Your task to perform on an android device: Go to Android settings Image 0: 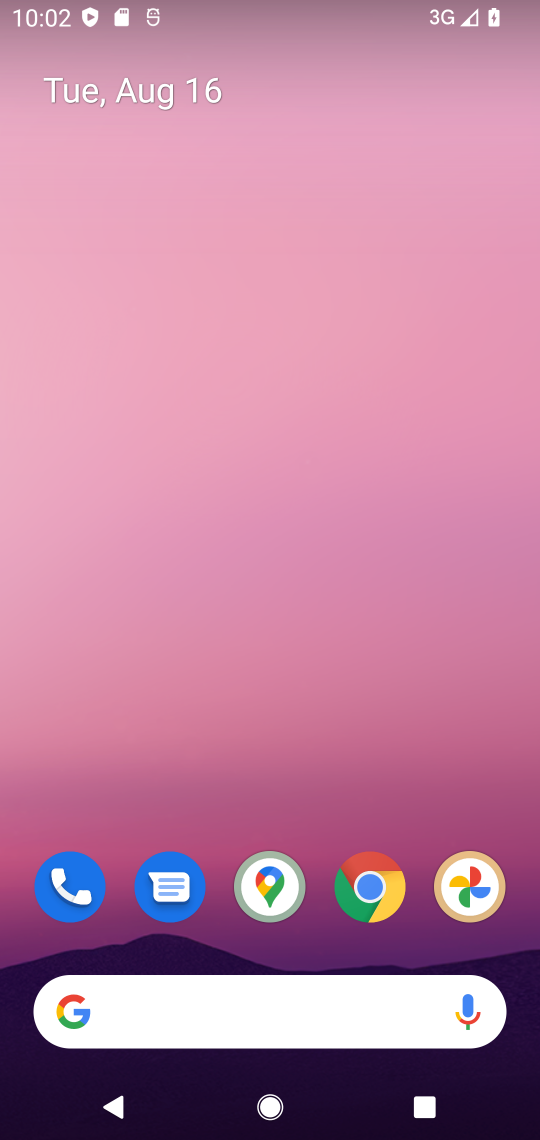
Step 0: press home button
Your task to perform on an android device: Go to Android settings Image 1: 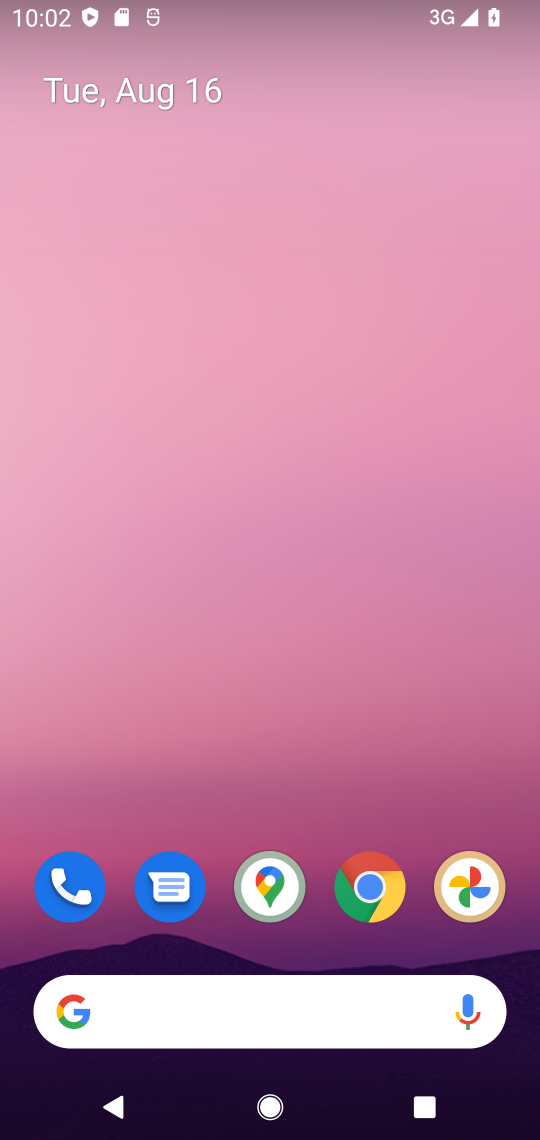
Step 1: drag from (415, 811) to (446, 186)
Your task to perform on an android device: Go to Android settings Image 2: 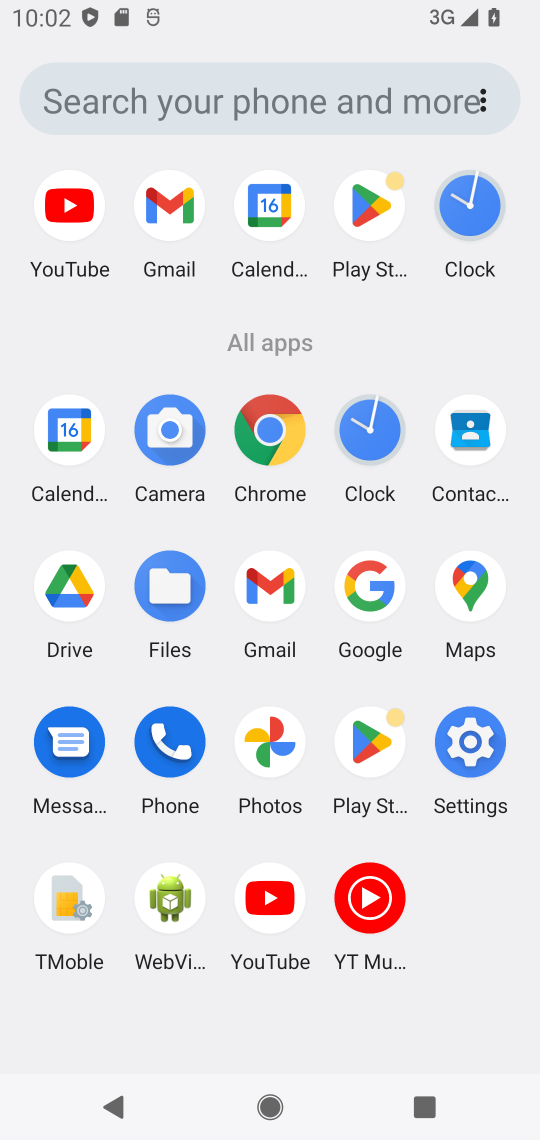
Step 2: click (477, 744)
Your task to perform on an android device: Go to Android settings Image 3: 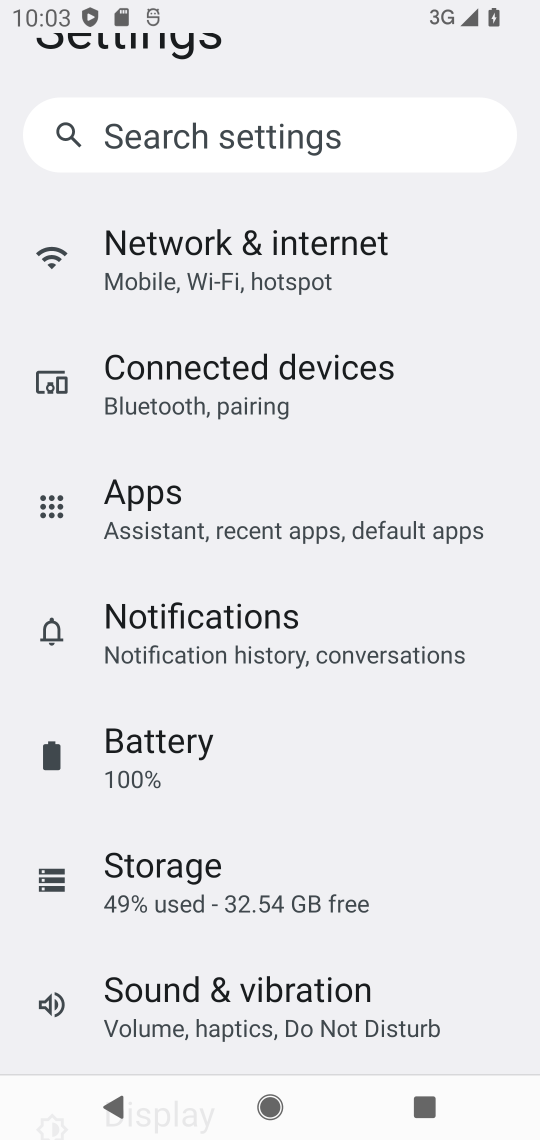
Step 3: drag from (473, 866) to (505, 748)
Your task to perform on an android device: Go to Android settings Image 4: 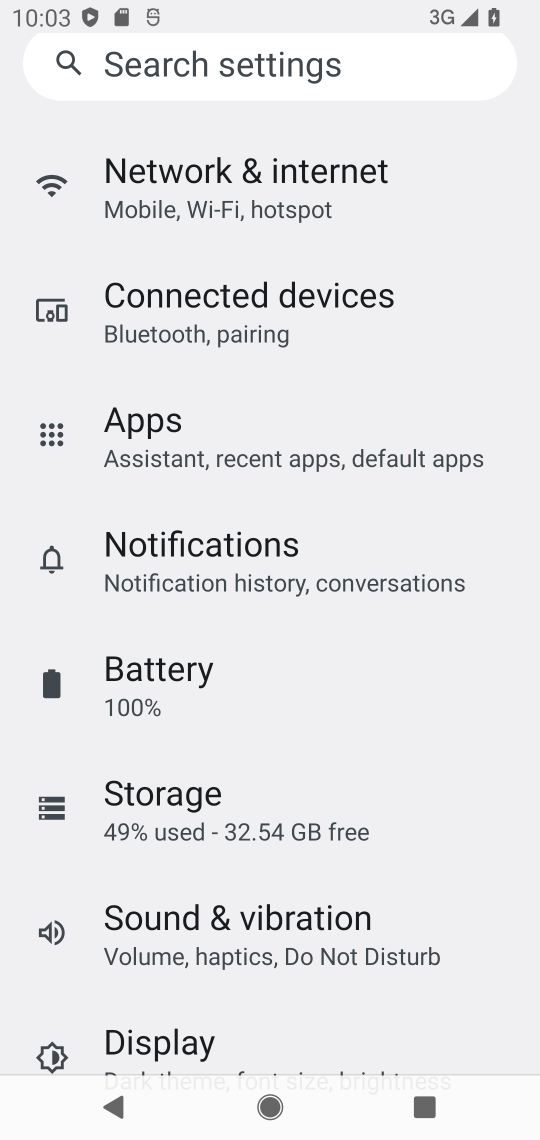
Step 4: drag from (479, 893) to (482, 777)
Your task to perform on an android device: Go to Android settings Image 5: 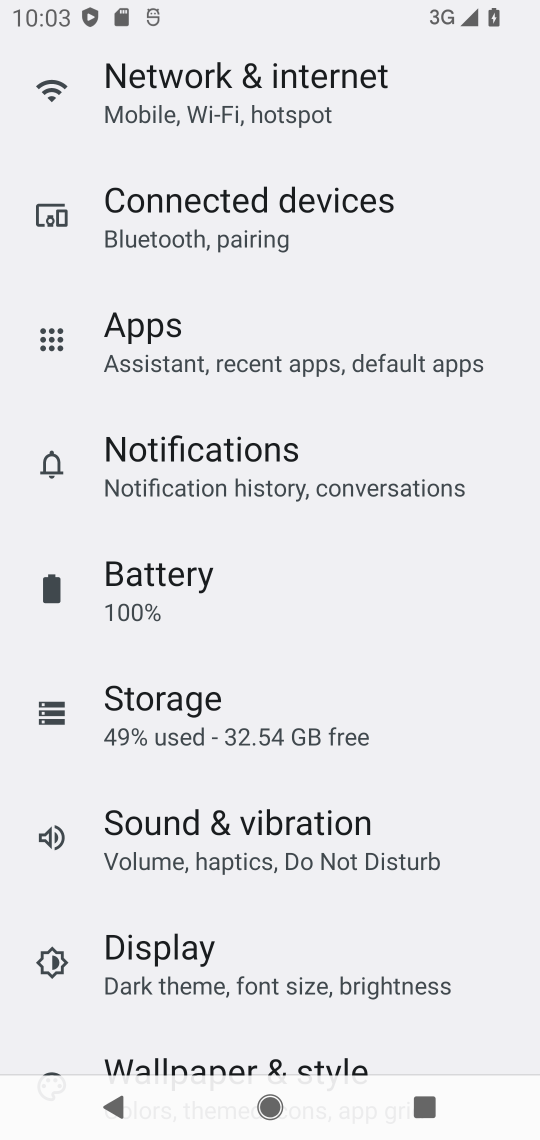
Step 5: drag from (494, 947) to (505, 762)
Your task to perform on an android device: Go to Android settings Image 6: 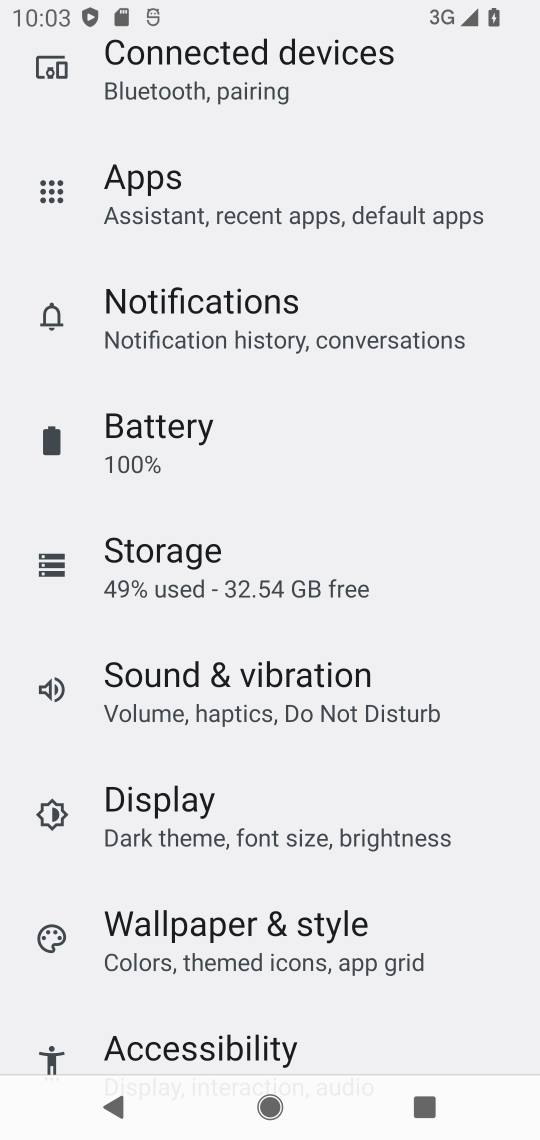
Step 6: drag from (477, 956) to (504, 765)
Your task to perform on an android device: Go to Android settings Image 7: 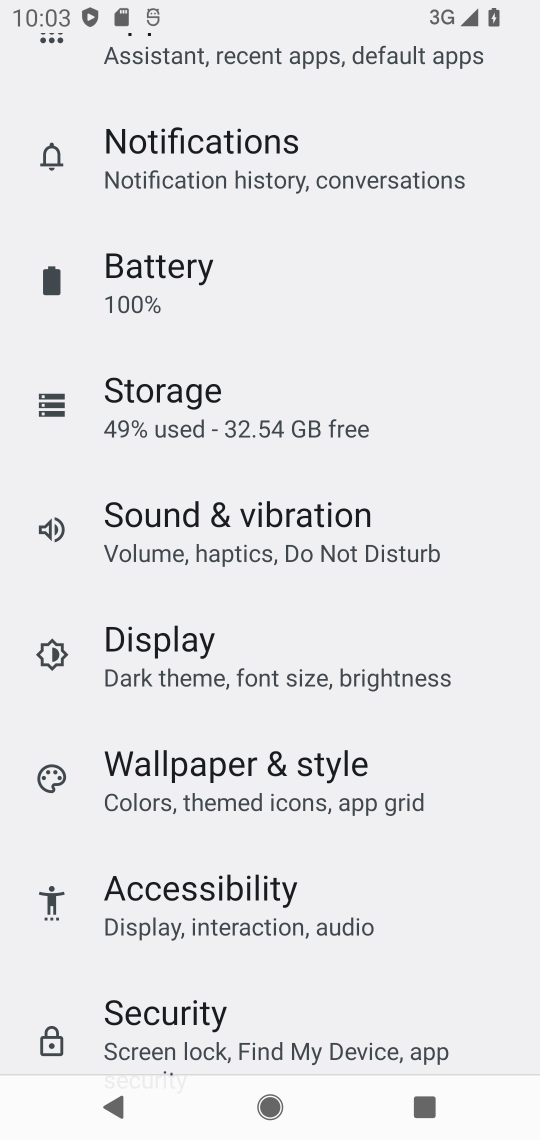
Step 7: drag from (453, 958) to (457, 785)
Your task to perform on an android device: Go to Android settings Image 8: 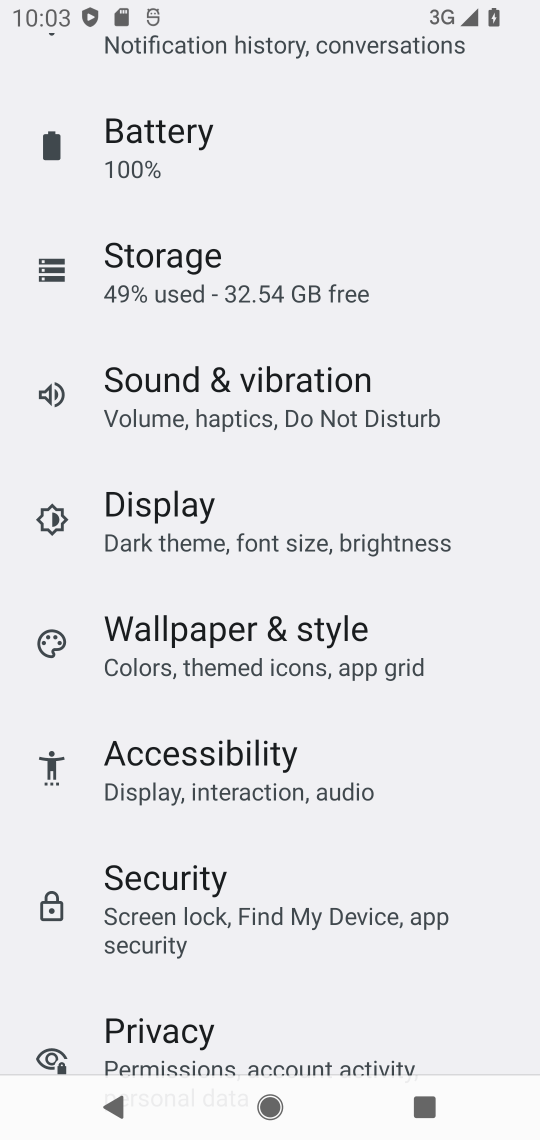
Step 8: drag from (492, 978) to (475, 779)
Your task to perform on an android device: Go to Android settings Image 9: 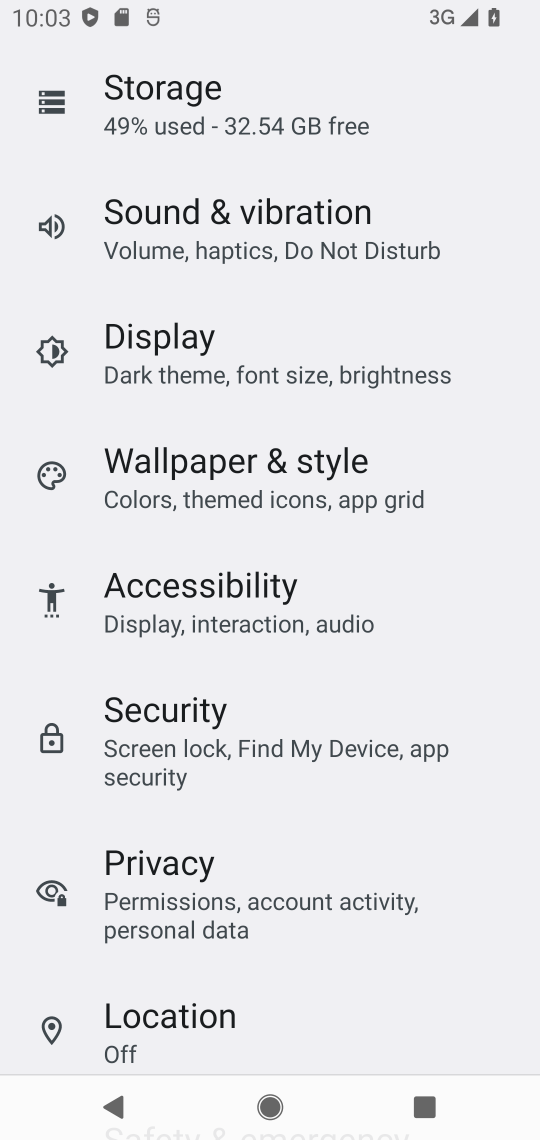
Step 9: drag from (443, 997) to (466, 737)
Your task to perform on an android device: Go to Android settings Image 10: 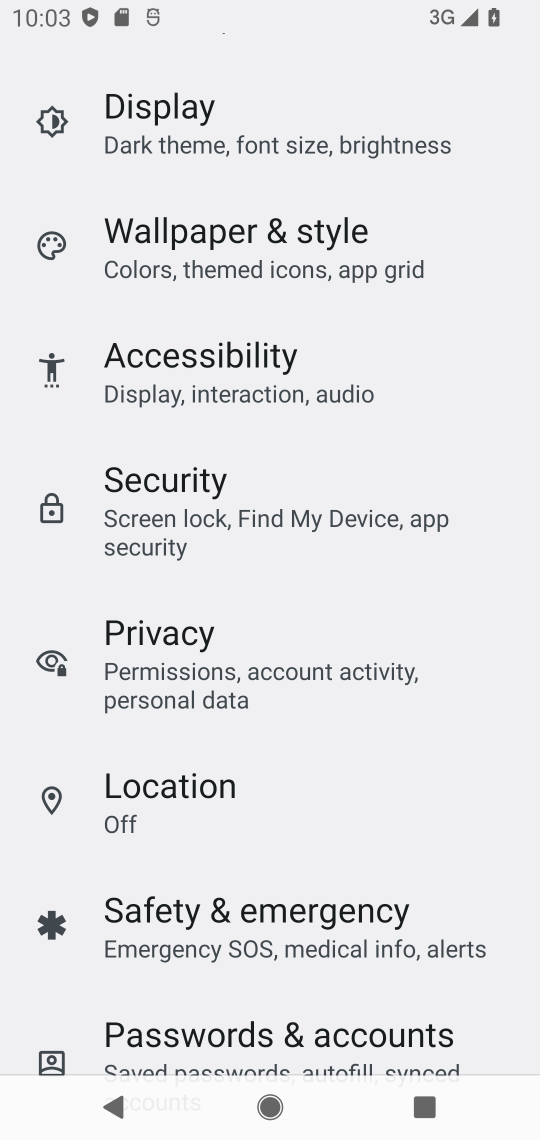
Step 10: drag from (486, 994) to (482, 711)
Your task to perform on an android device: Go to Android settings Image 11: 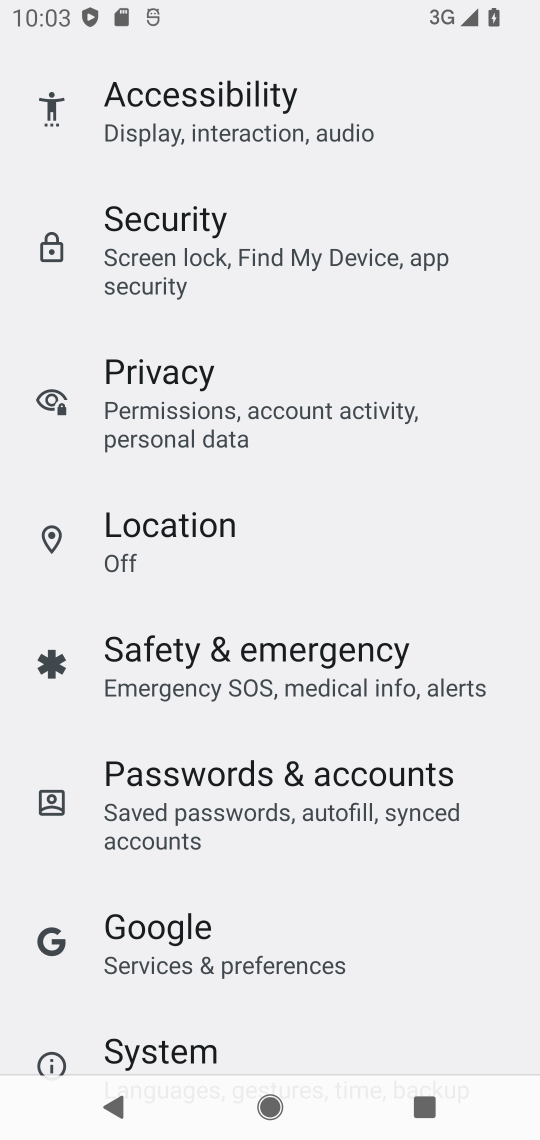
Step 11: drag from (446, 959) to (482, 702)
Your task to perform on an android device: Go to Android settings Image 12: 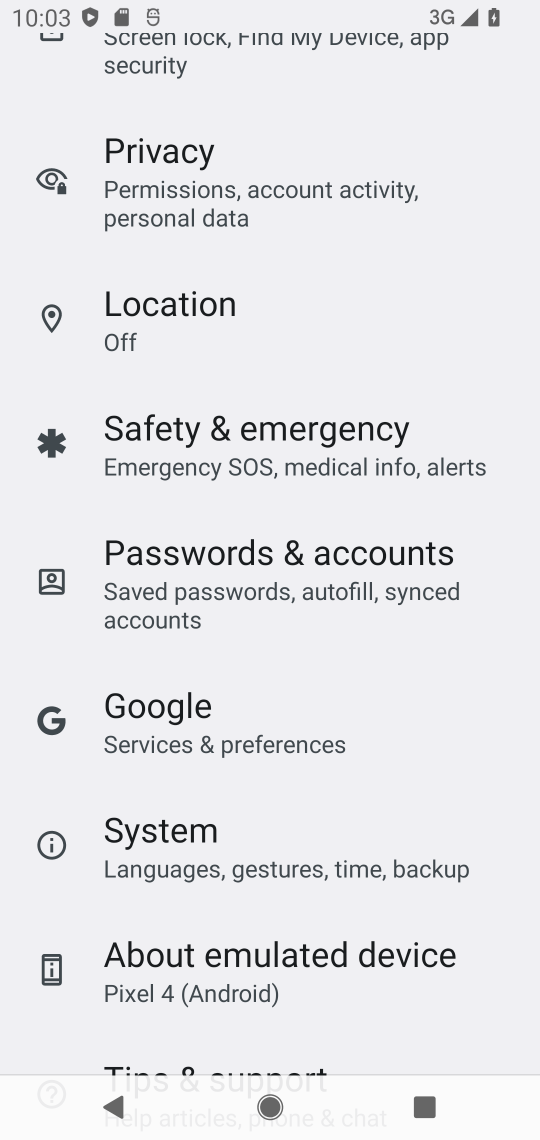
Step 12: drag from (446, 1041) to (458, 805)
Your task to perform on an android device: Go to Android settings Image 13: 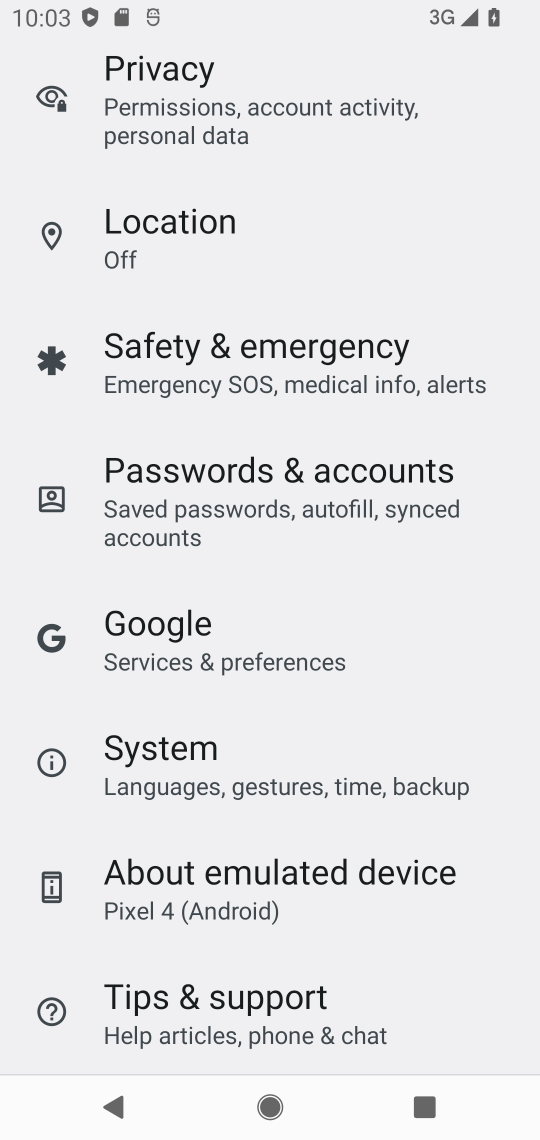
Step 13: click (418, 783)
Your task to perform on an android device: Go to Android settings Image 14: 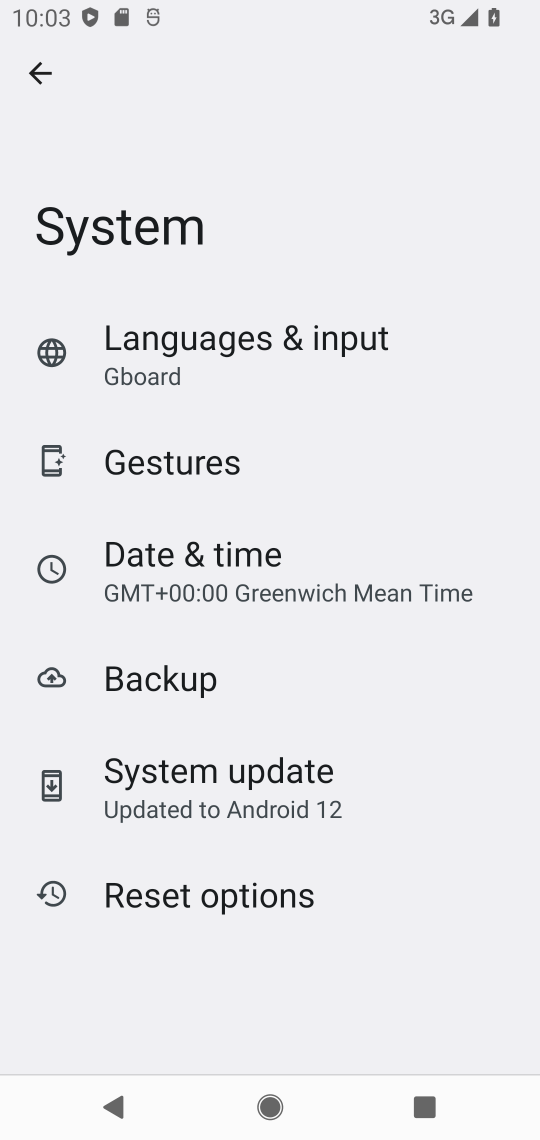
Step 14: task complete